Your task to perform on an android device: Turn on the flashlight Image 0: 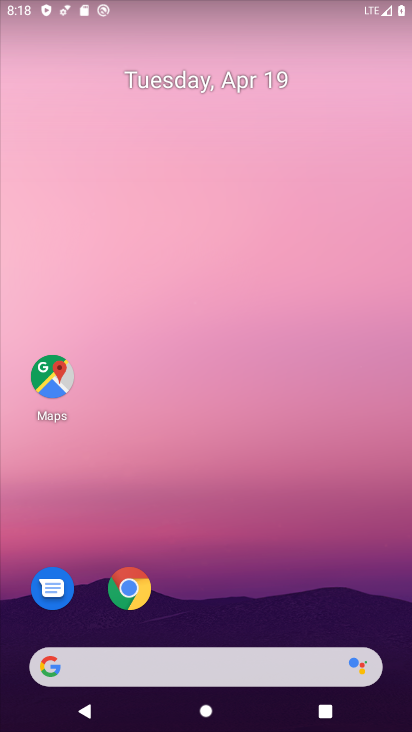
Step 0: drag from (291, 623) to (250, 405)
Your task to perform on an android device: Turn on the flashlight Image 1: 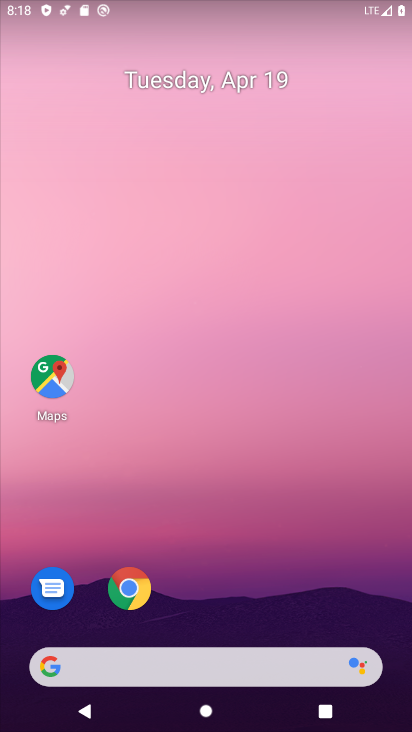
Step 1: drag from (293, 607) to (252, 249)
Your task to perform on an android device: Turn on the flashlight Image 2: 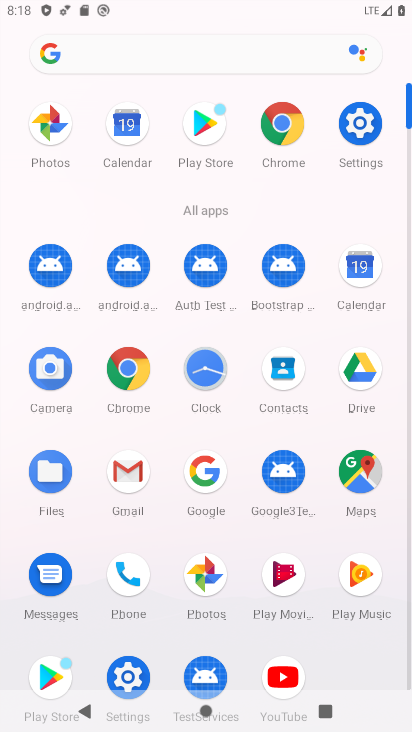
Step 2: click (351, 146)
Your task to perform on an android device: Turn on the flashlight Image 3: 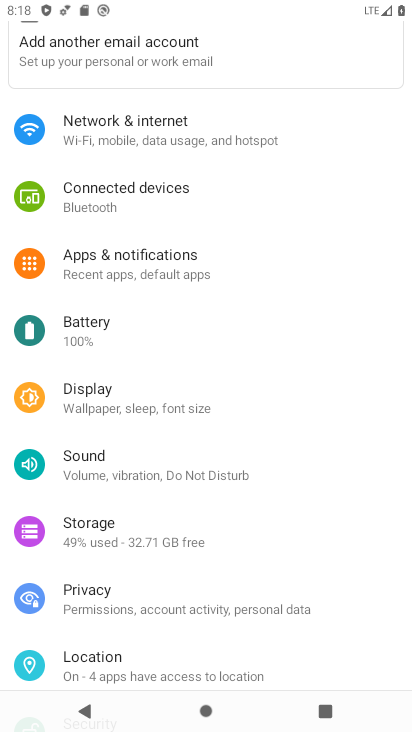
Step 3: click (156, 337)
Your task to perform on an android device: Turn on the flashlight Image 4: 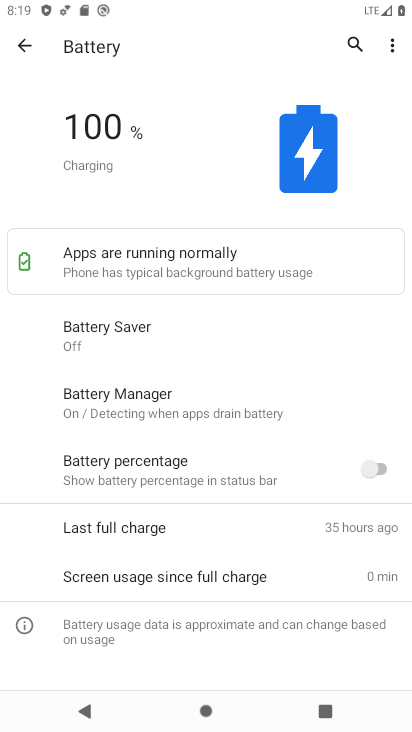
Step 4: task complete